Your task to perform on an android device: Clear all items from cart on bestbuy. Add usb-b to the cart on bestbuy, then select checkout. Image 0: 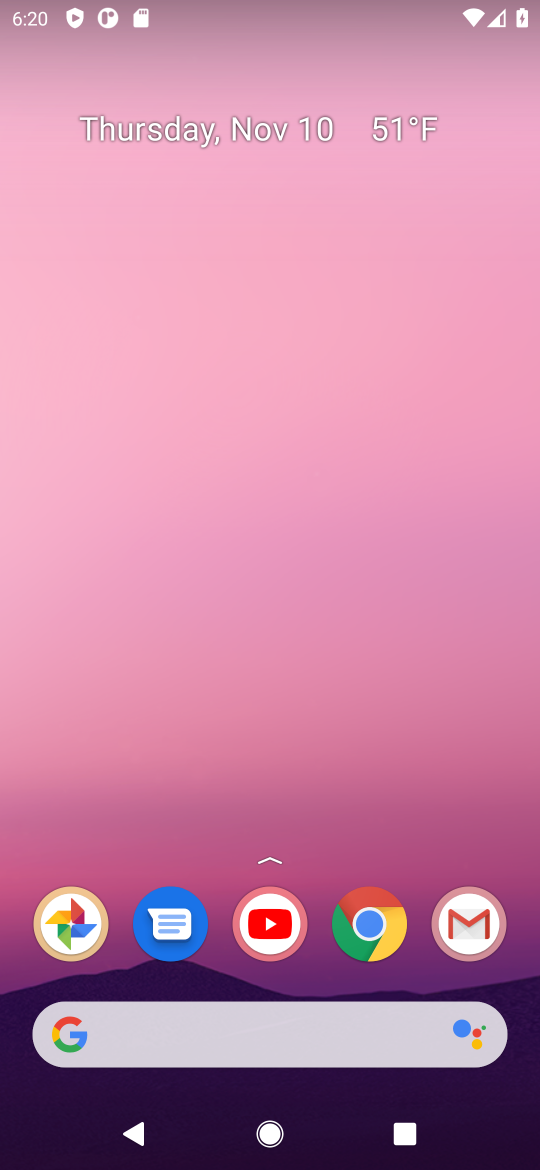
Step 0: click (374, 923)
Your task to perform on an android device: Clear all items from cart on bestbuy. Add usb-b to the cart on bestbuy, then select checkout. Image 1: 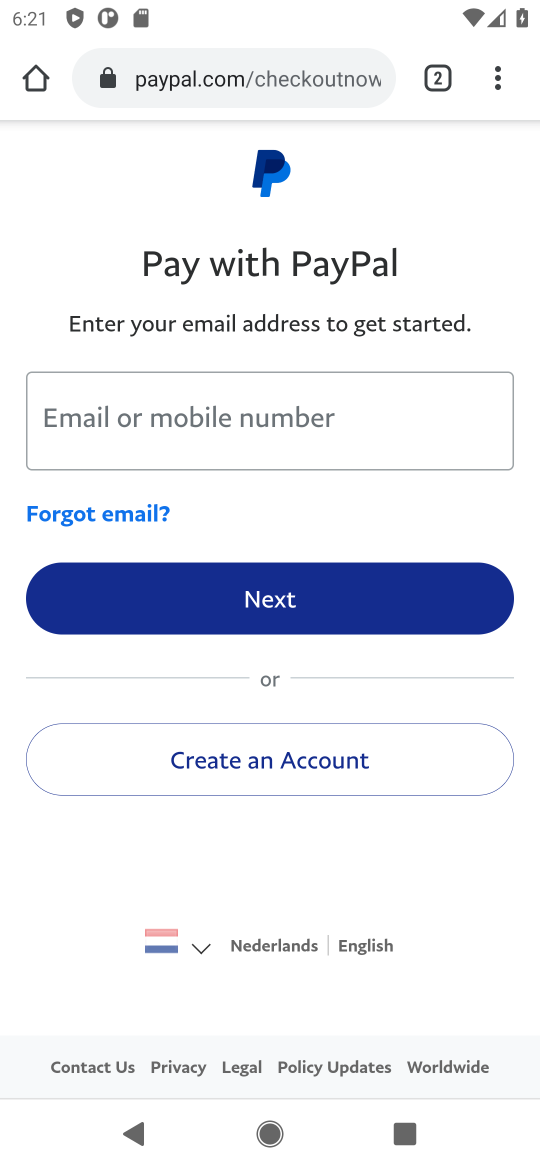
Step 1: click (233, 93)
Your task to perform on an android device: Clear all items from cart on bestbuy. Add usb-b to the cart on bestbuy, then select checkout. Image 2: 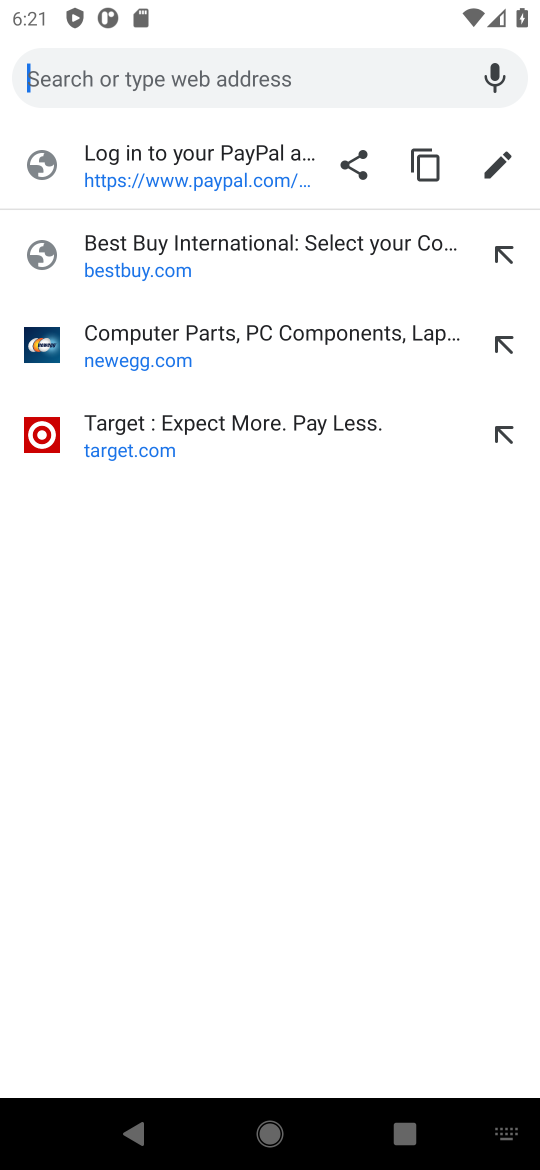
Step 2: click (128, 265)
Your task to perform on an android device: Clear all items from cart on bestbuy. Add usb-b to the cart on bestbuy, then select checkout. Image 3: 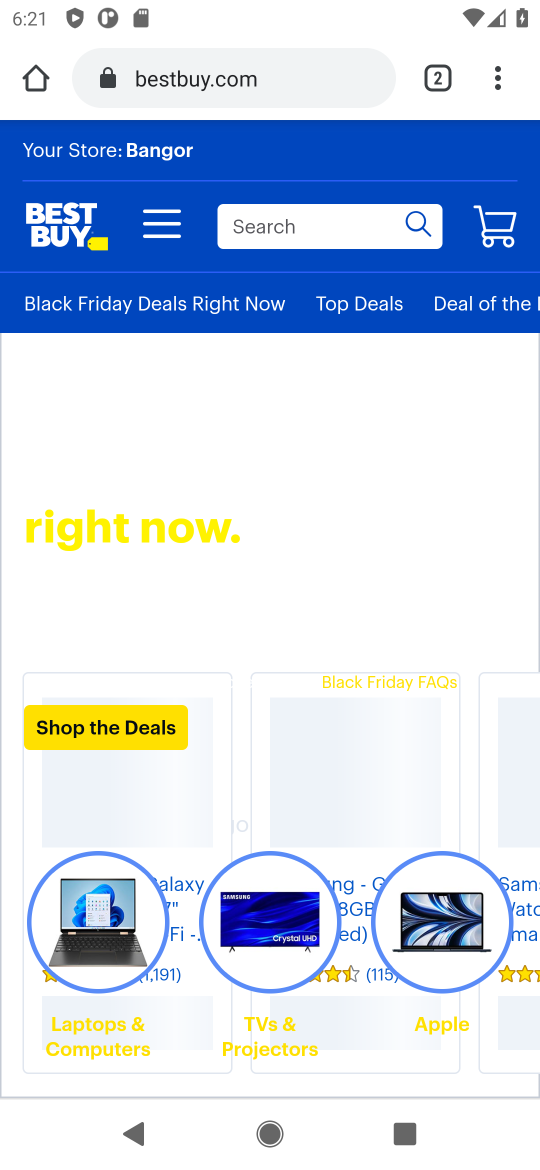
Step 3: click (496, 241)
Your task to perform on an android device: Clear all items from cart on bestbuy. Add usb-b to the cart on bestbuy, then select checkout. Image 4: 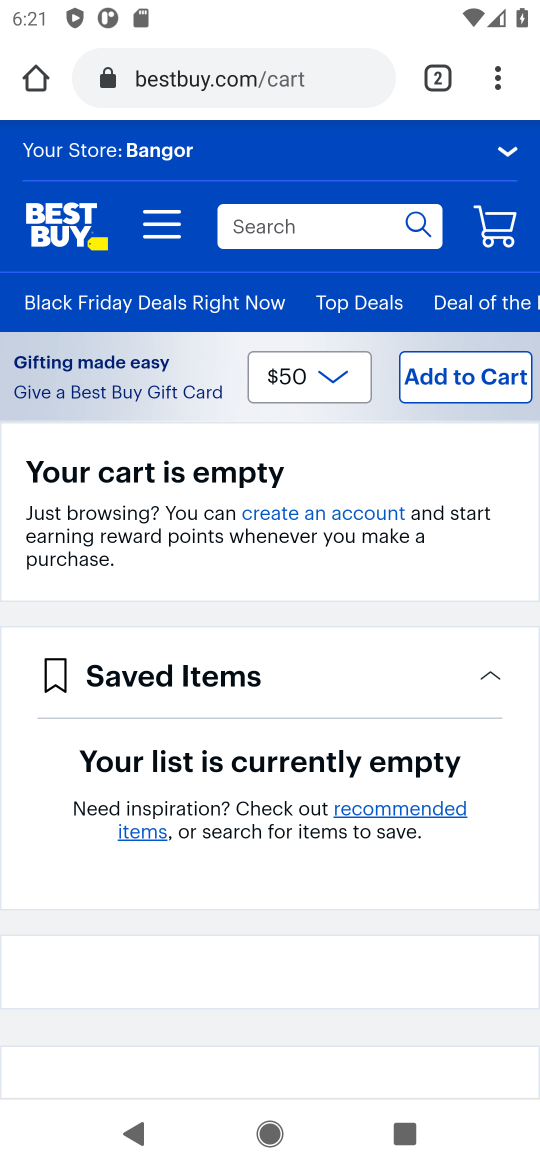
Step 4: click (289, 229)
Your task to perform on an android device: Clear all items from cart on bestbuy. Add usb-b to the cart on bestbuy, then select checkout. Image 5: 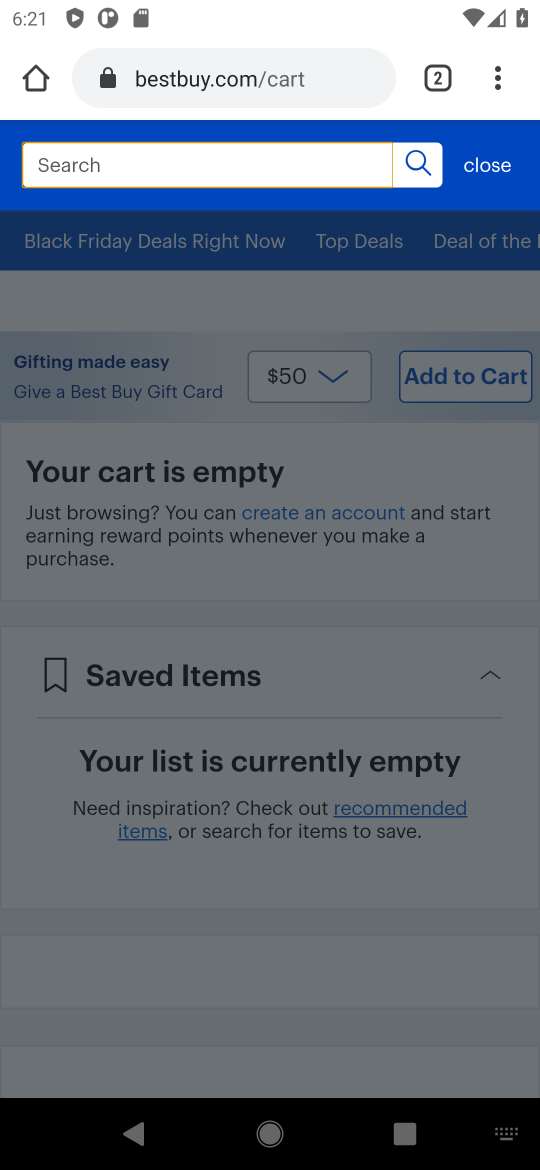
Step 5: type "usb-b"
Your task to perform on an android device: Clear all items from cart on bestbuy. Add usb-b to the cart on bestbuy, then select checkout. Image 6: 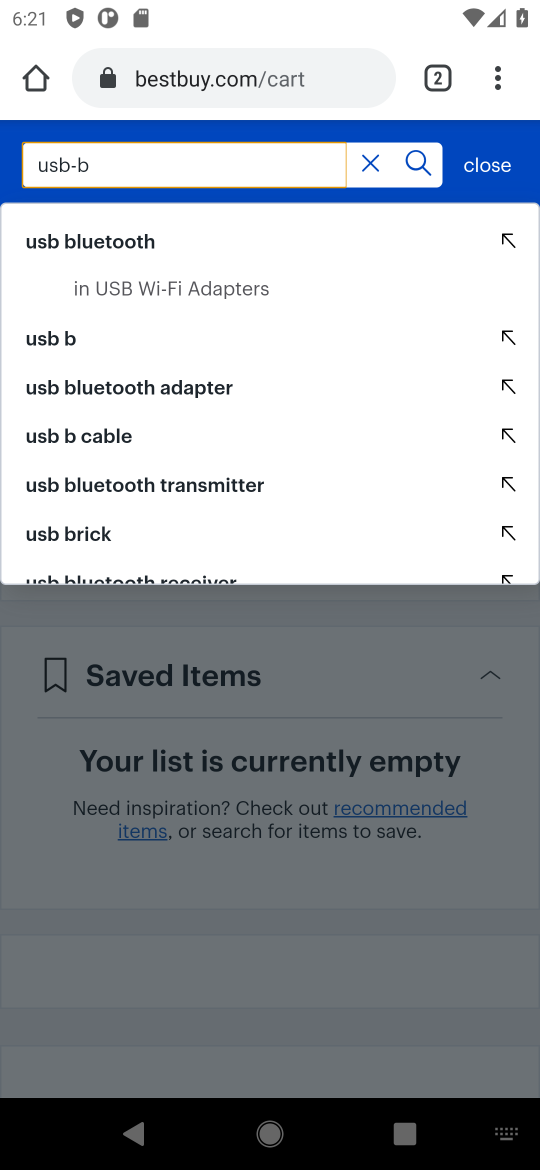
Step 6: click (47, 342)
Your task to perform on an android device: Clear all items from cart on bestbuy. Add usb-b to the cart on bestbuy, then select checkout. Image 7: 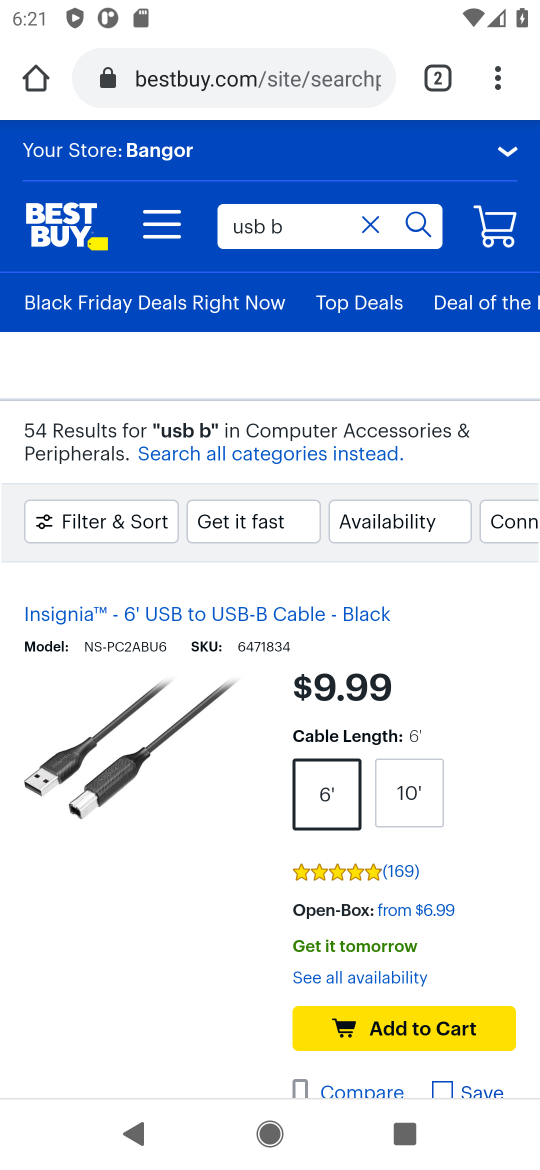
Step 7: drag from (158, 799) to (193, 521)
Your task to perform on an android device: Clear all items from cart on bestbuy. Add usb-b to the cart on bestbuy, then select checkout. Image 8: 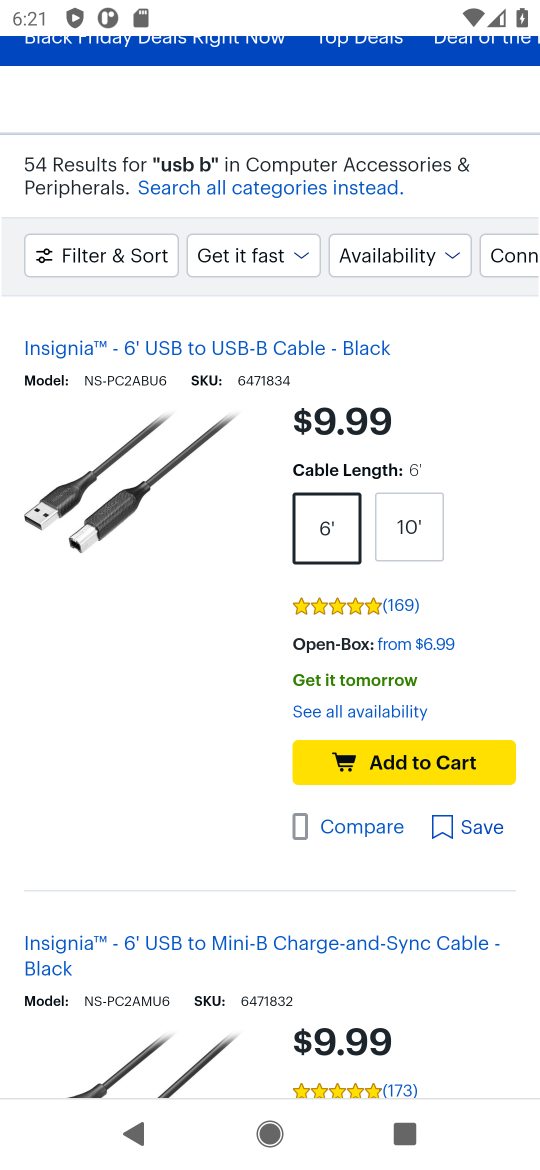
Step 8: click (402, 769)
Your task to perform on an android device: Clear all items from cart on bestbuy. Add usb-b to the cart on bestbuy, then select checkout. Image 9: 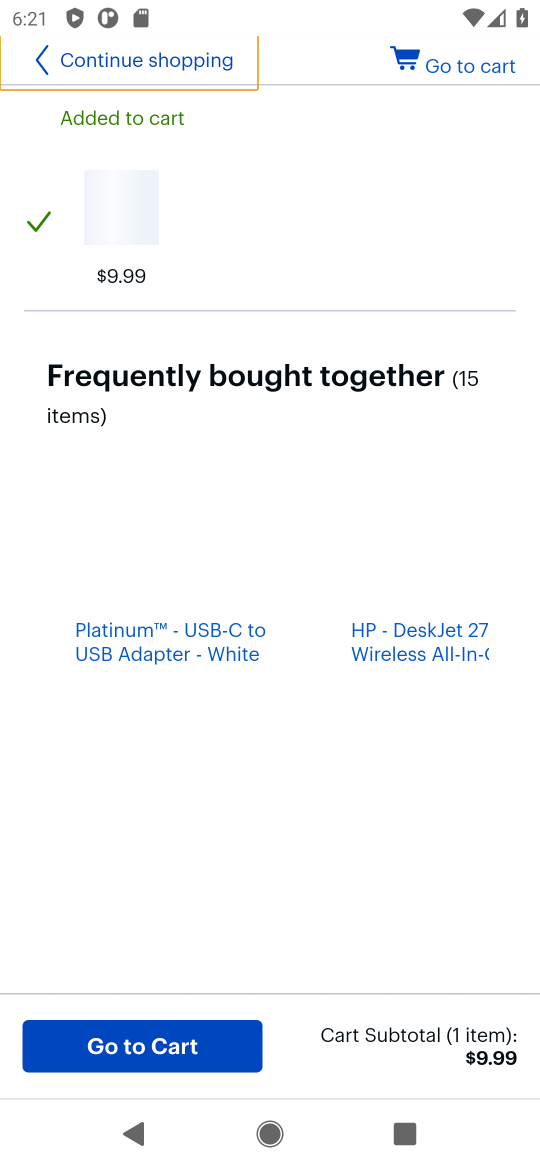
Step 9: click (445, 71)
Your task to perform on an android device: Clear all items from cart on bestbuy. Add usb-b to the cart on bestbuy, then select checkout. Image 10: 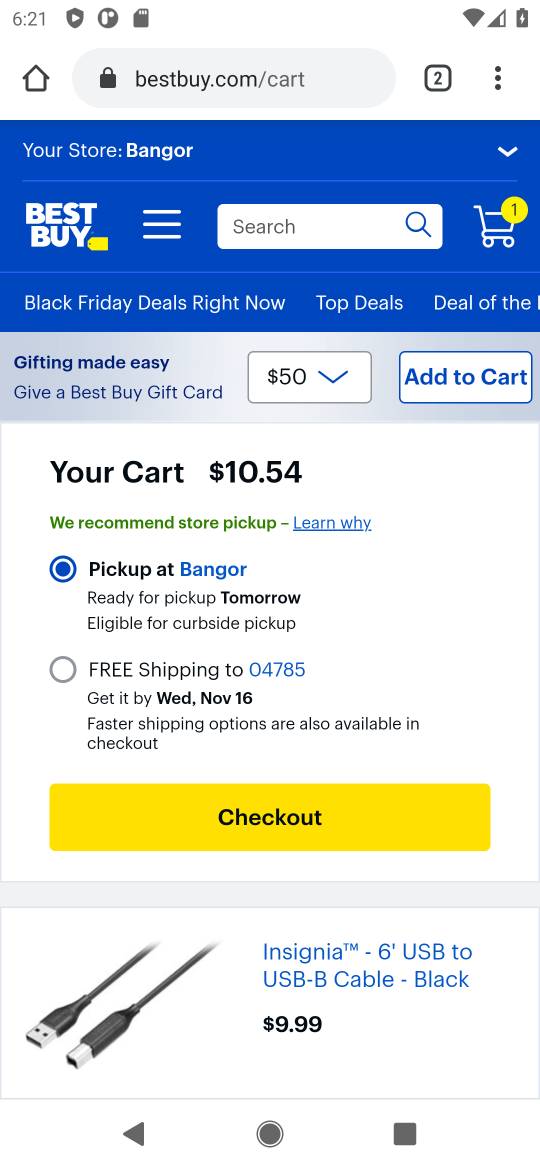
Step 10: click (240, 811)
Your task to perform on an android device: Clear all items from cart on bestbuy. Add usb-b to the cart on bestbuy, then select checkout. Image 11: 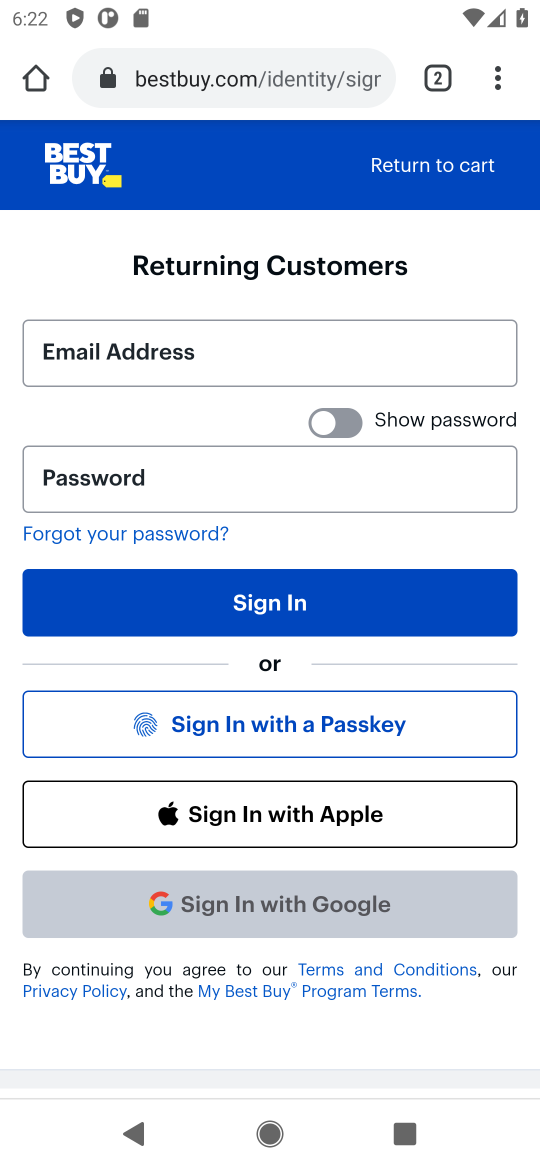
Step 11: task complete